Your task to perform on an android device: install app "Flipkart Online Shopping App" Image 0: 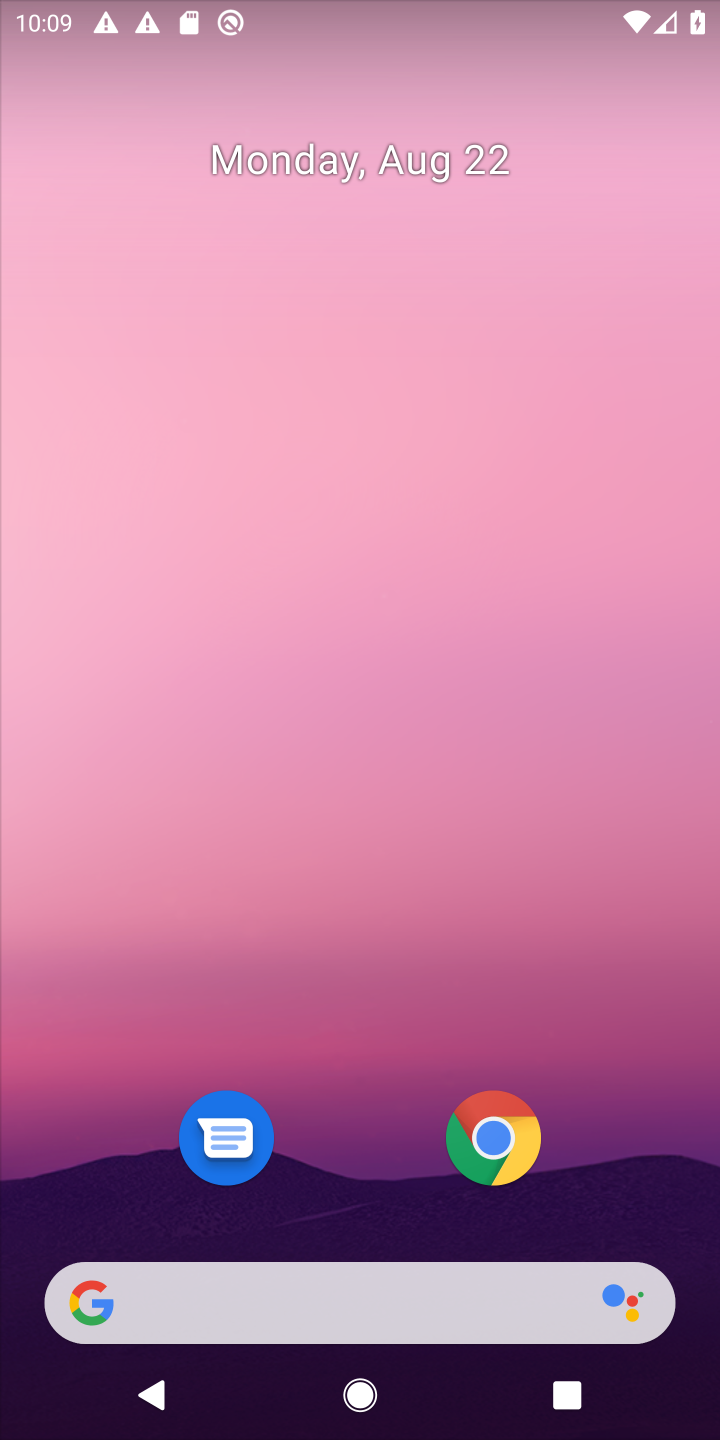
Step 0: drag from (623, 1165) to (670, 118)
Your task to perform on an android device: install app "Flipkart Online Shopping App" Image 1: 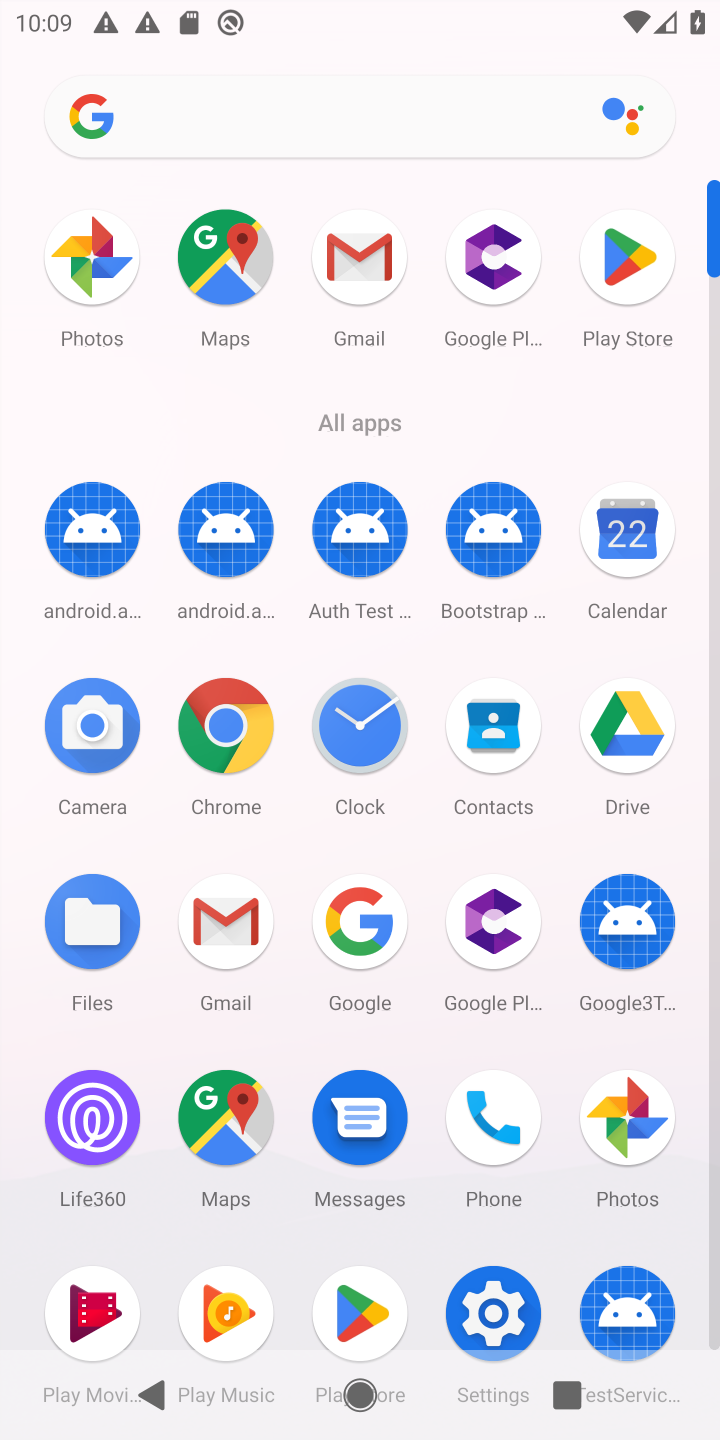
Step 1: click (629, 279)
Your task to perform on an android device: install app "Flipkart Online Shopping App" Image 2: 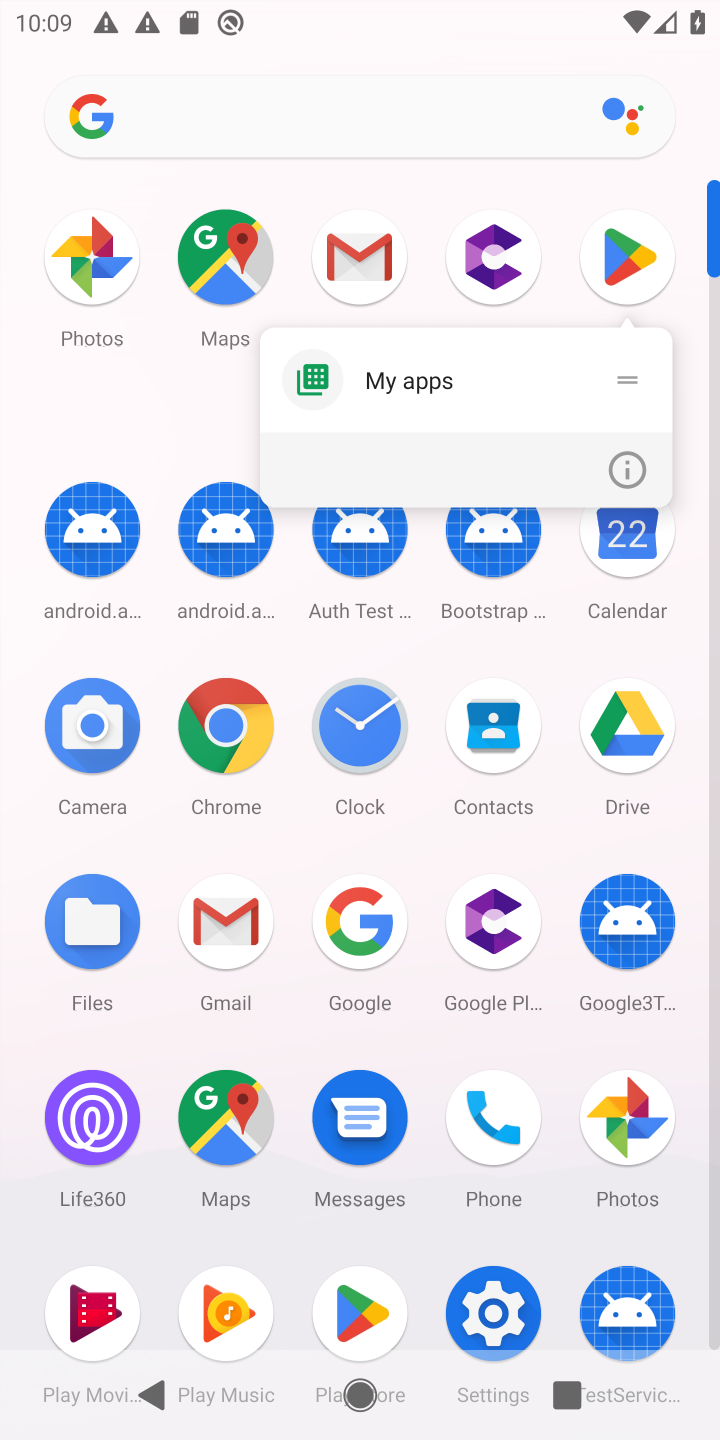
Step 2: click (649, 248)
Your task to perform on an android device: install app "Flipkart Online Shopping App" Image 3: 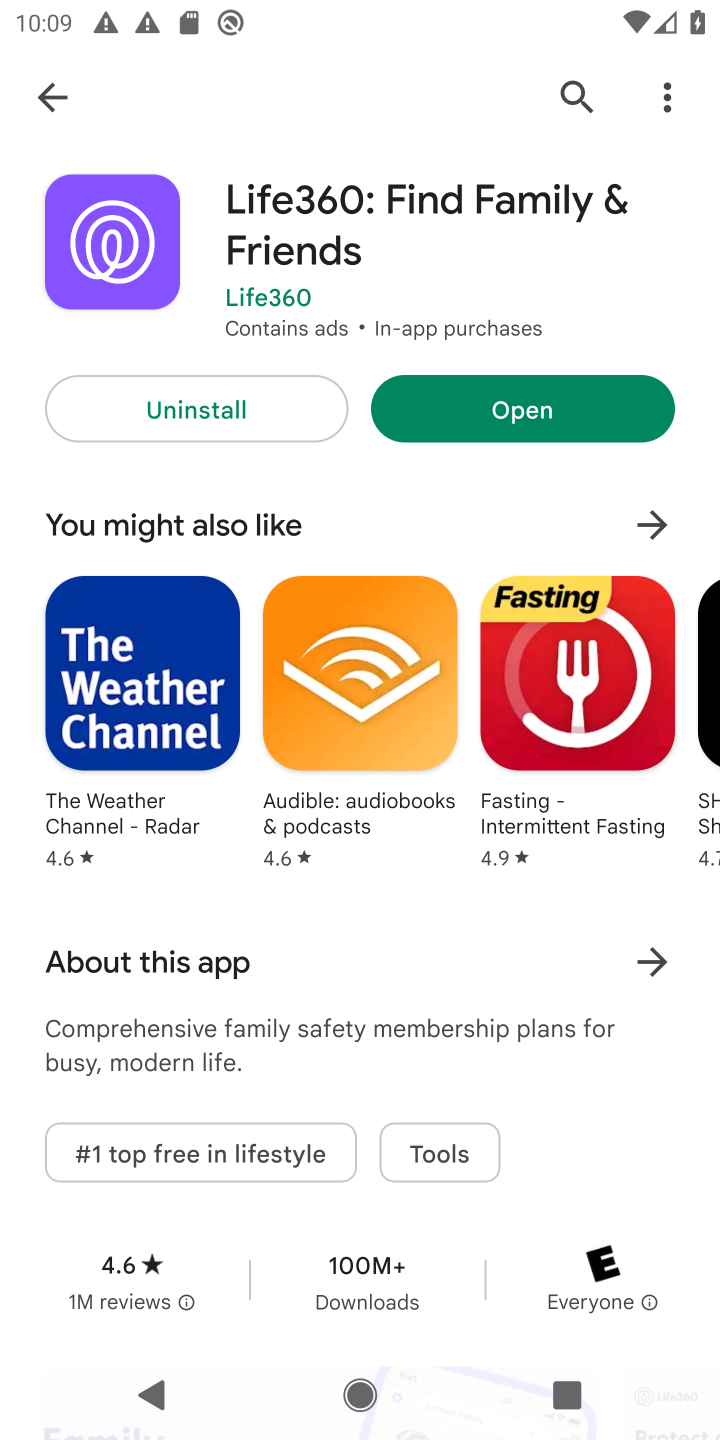
Step 3: press back button
Your task to perform on an android device: install app "Flipkart Online Shopping App" Image 4: 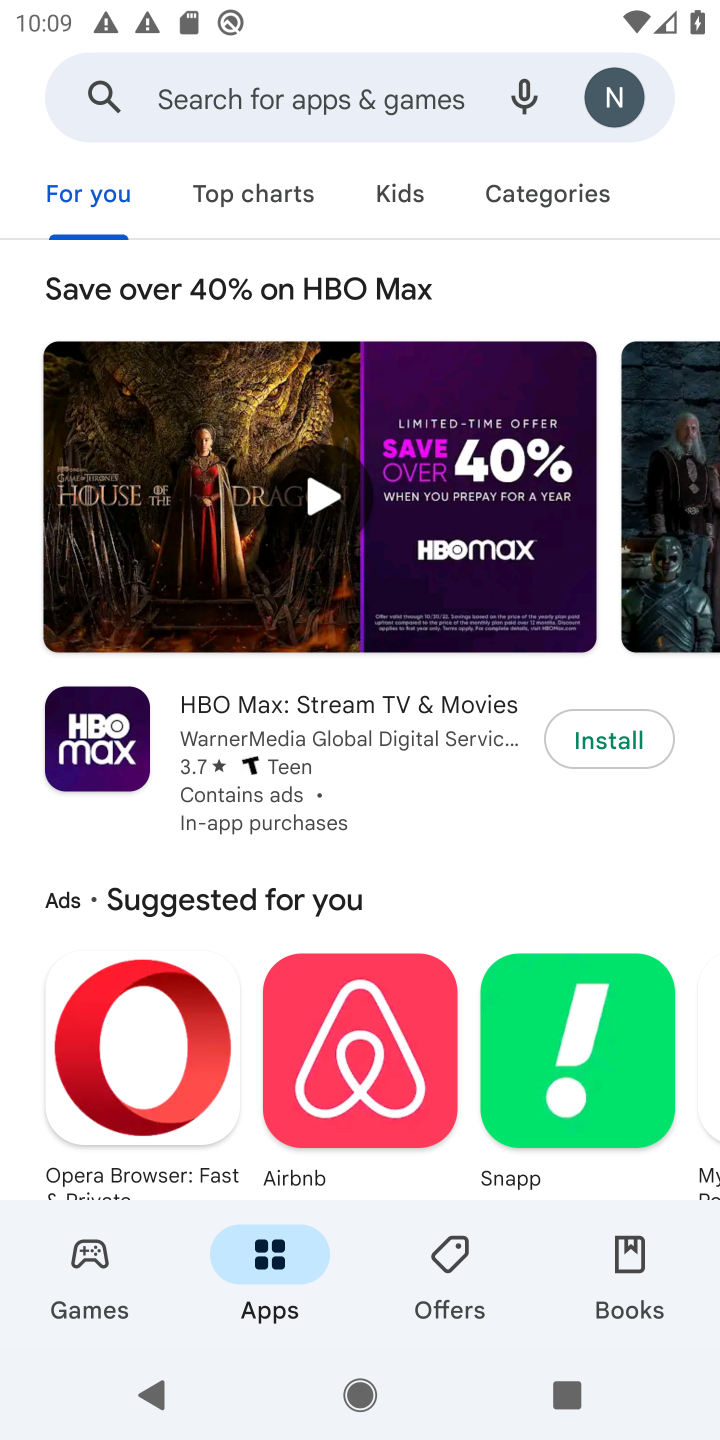
Step 4: click (251, 97)
Your task to perform on an android device: install app "Flipkart Online Shopping App" Image 5: 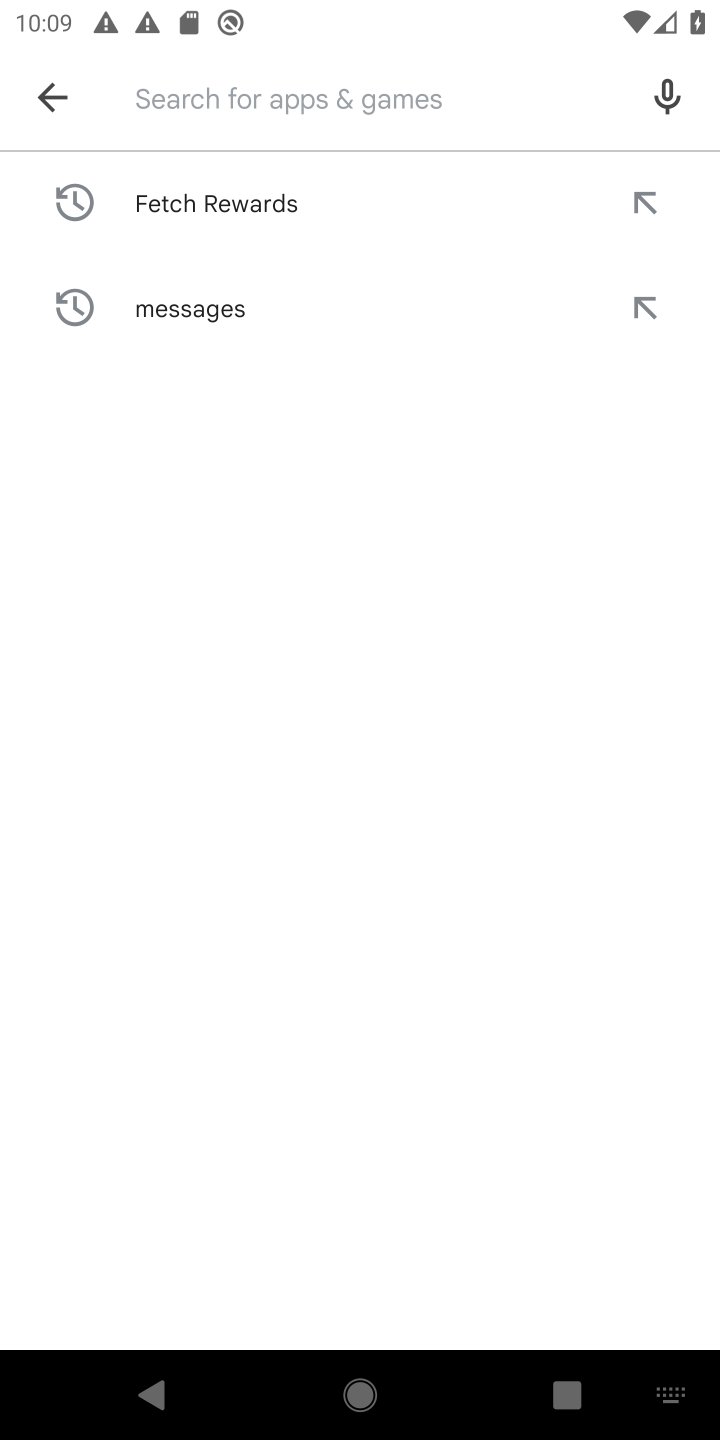
Step 5: press enter
Your task to perform on an android device: install app "Flipkart Online Shopping App" Image 6: 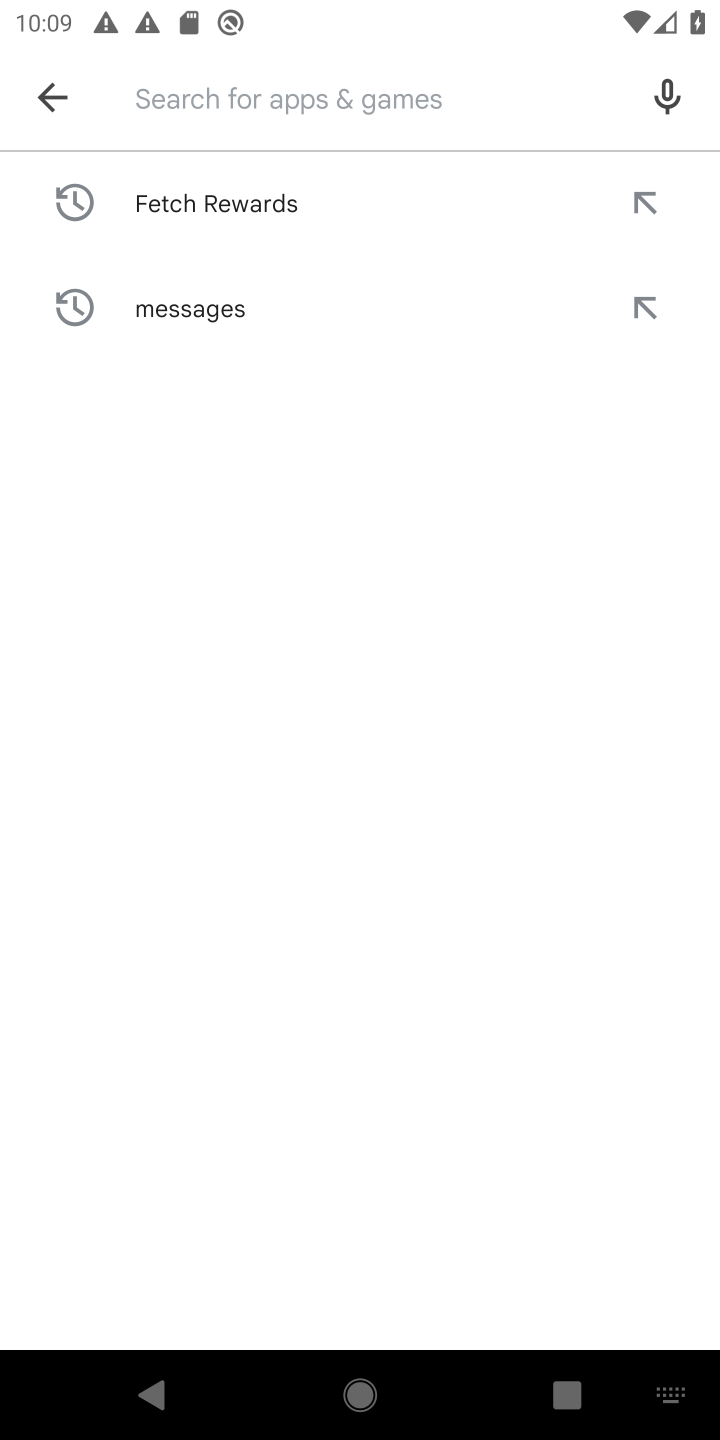
Step 6: type "Flipkart Online Shopping App"
Your task to perform on an android device: install app "Flipkart Online Shopping App" Image 7: 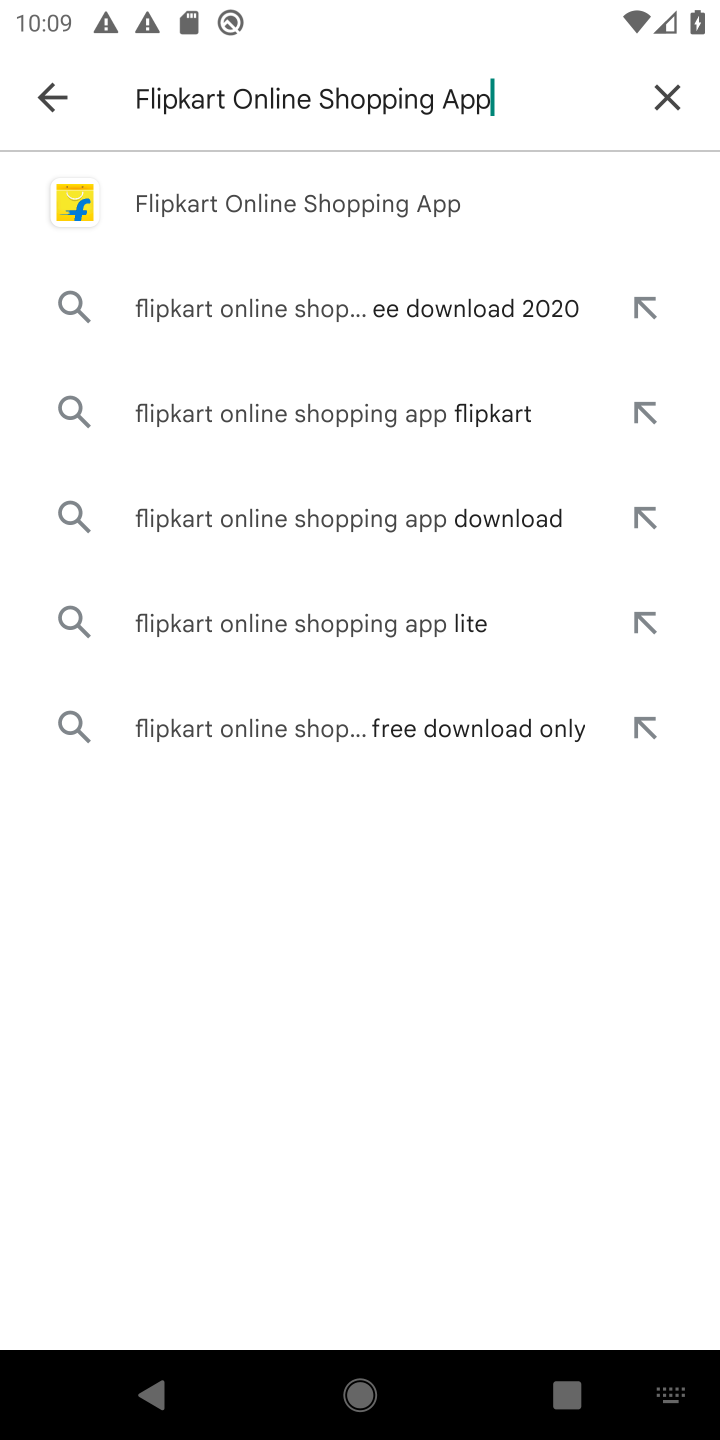
Step 7: click (339, 211)
Your task to perform on an android device: install app "Flipkart Online Shopping App" Image 8: 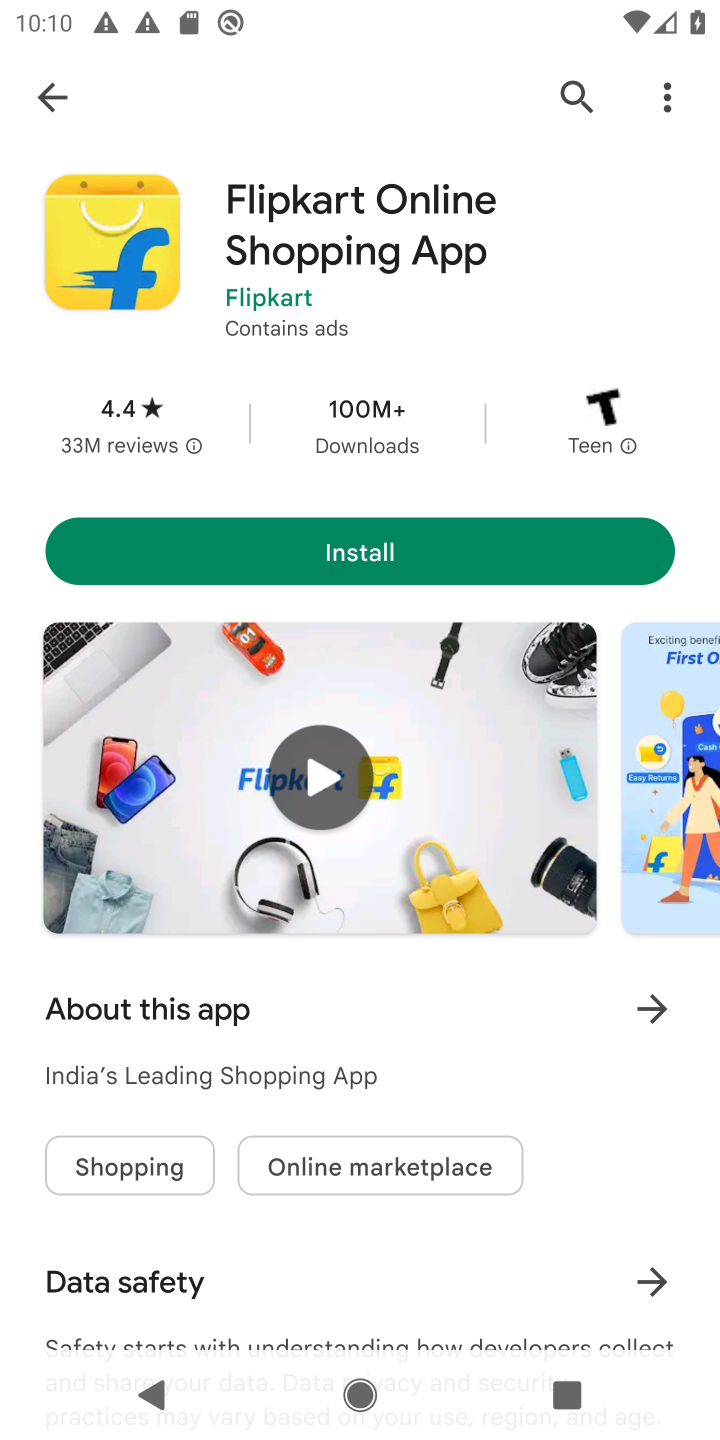
Step 8: click (346, 561)
Your task to perform on an android device: install app "Flipkart Online Shopping App" Image 9: 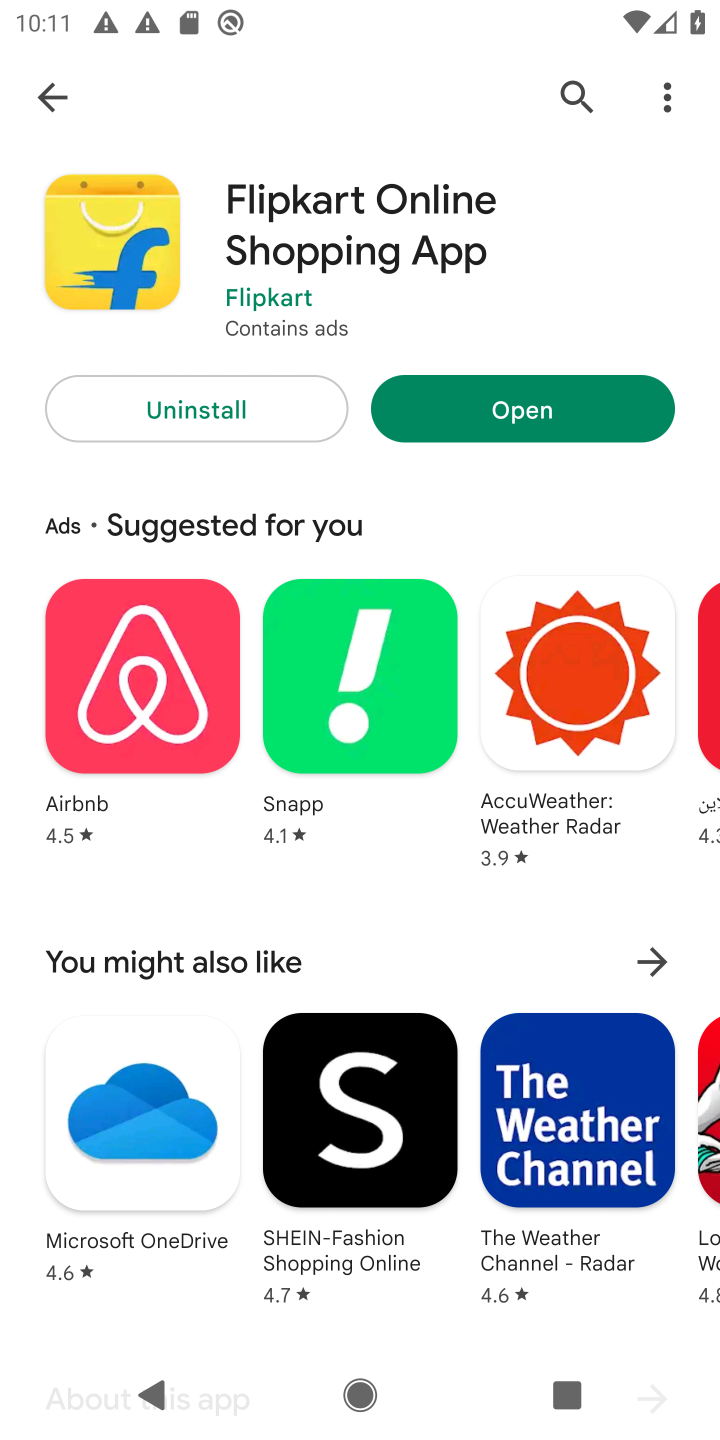
Step 9: task complete